Your task to perform on an android device: Go to display settings Image 0: 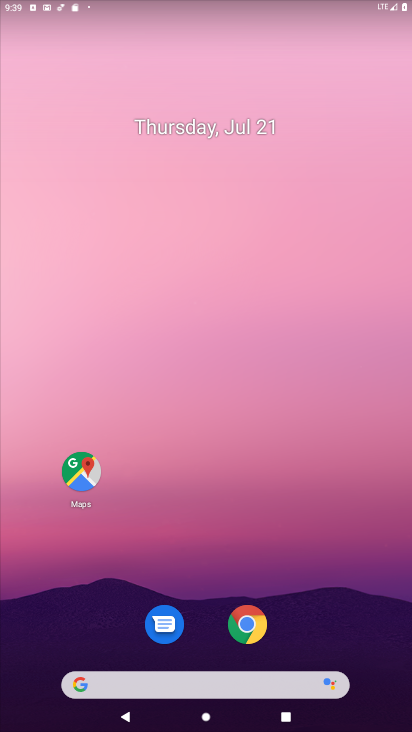
Step 0: drag from (68, 545) to (260, 97)
Your task to perform on an android device: Go to display settings Image 1: 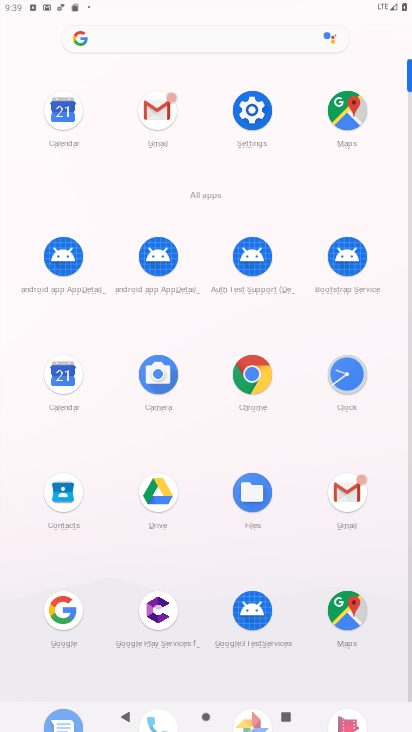
Step 1: click (256, 116)
Your task to perform on an android device: Go to display settings Image 2: 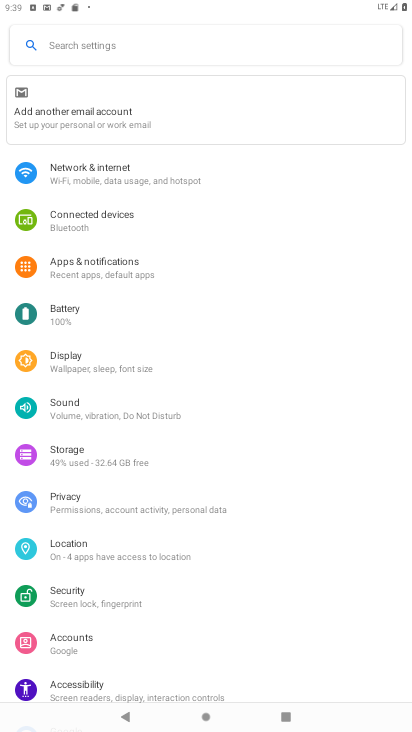
Step 2: click (173, 373)
Your task to perform on an android device: Go to display settings Image 3: 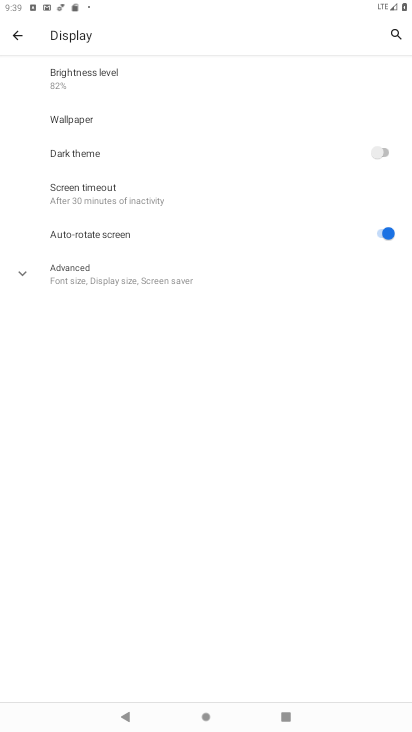
Step 3: task complete